Your task to perform on an android device: turn off location Image 0: 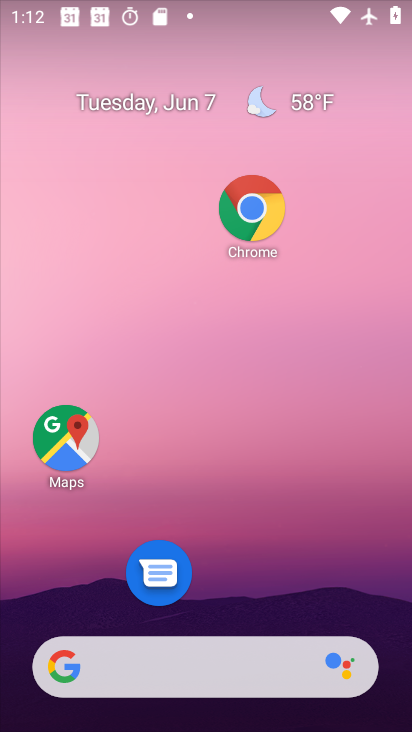
Step 0: drag from (231, 594) to (177, 174)
Your task to perform on an android device: turn off location Image 1: 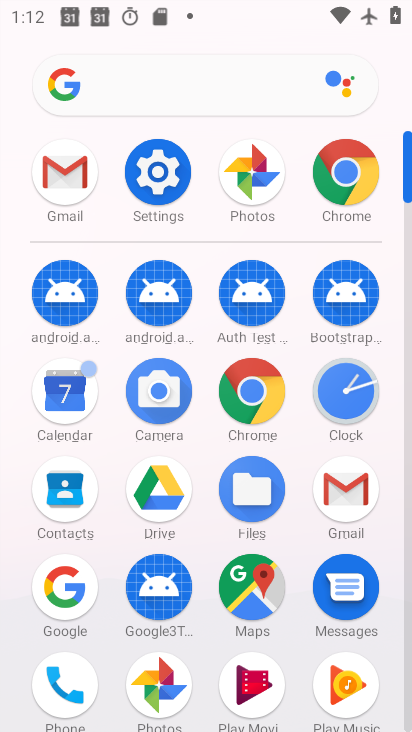
Step 1: click (167, 189)
Your task to perform on an android device: turn off location Image 2: 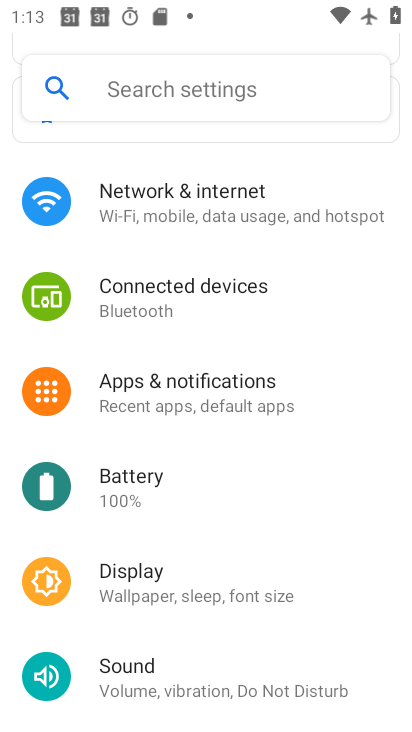
Step 2: drag from (201, 618) to (216, 328)
Your task to perform on an android device: turn off location Image 3: 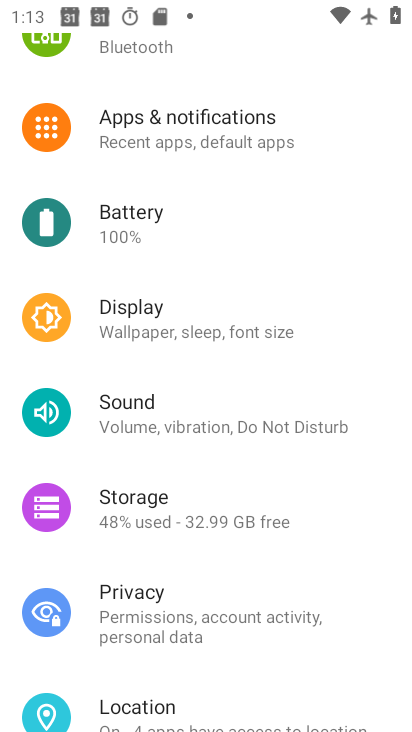
Step 3: click (212, 698)
Your task to perform on an android device: turn off location Image 4: 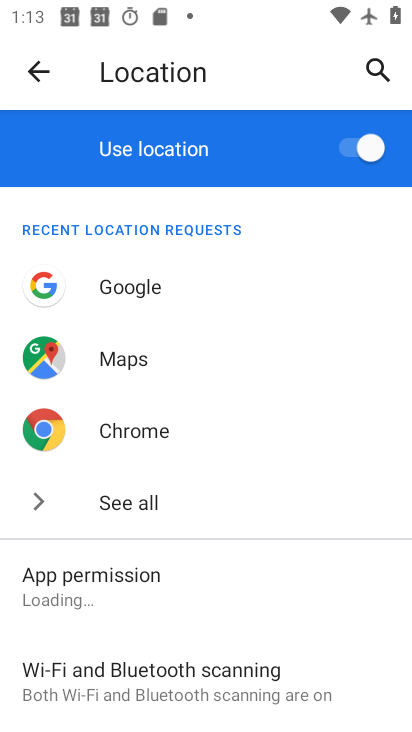
Step 4: click (342, 153)
Your task to perform on an android device: turn off location Image 5: 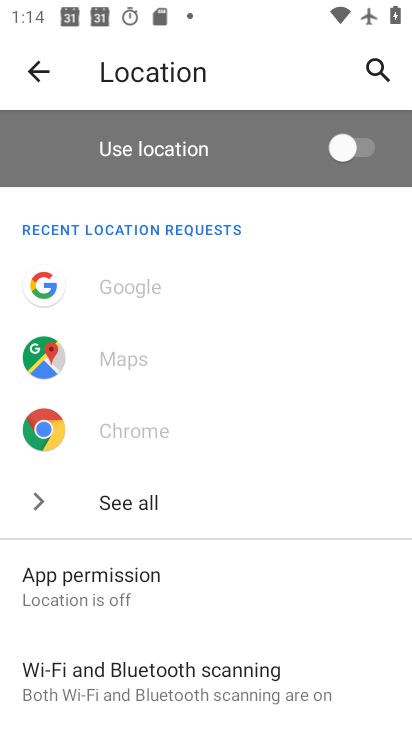
Step 5: task complete